Your task to perform on an android device: turn off location Image 0: 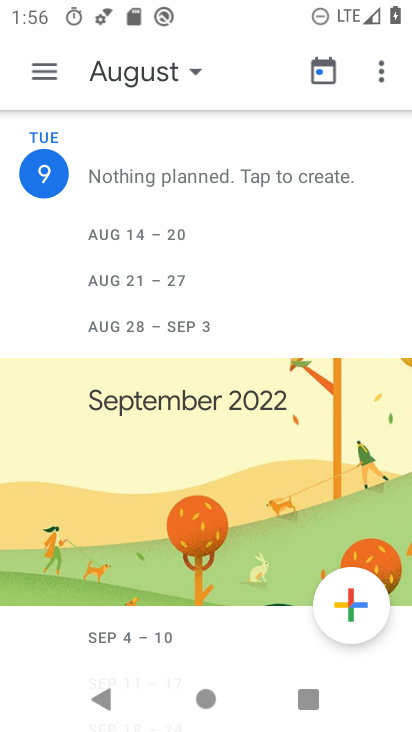
Step 0: press home button
Your task to perform on an android device: turn off location Image 1: 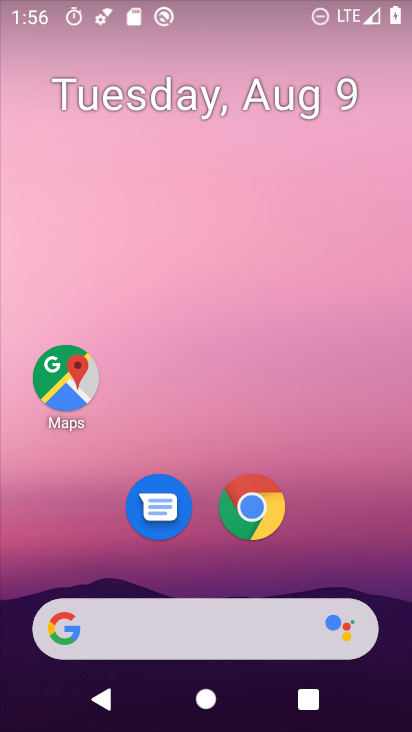
Step 1: click (243, 156)
Your task to perform on an android device: turn off location Image 2: 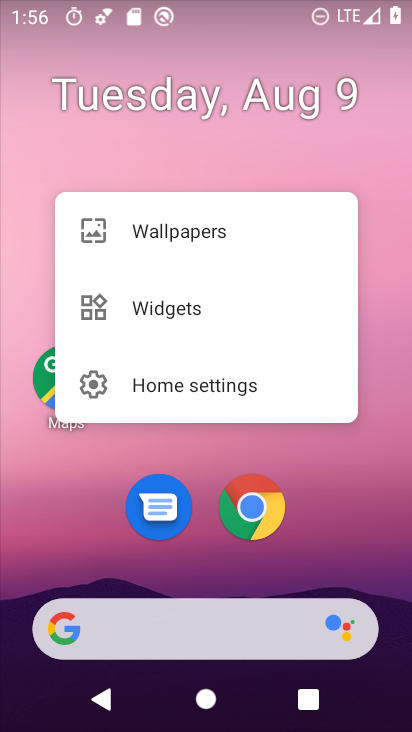
Step 2: click (318, 510)
Your task to perform on an android device: turn off location Image 3: 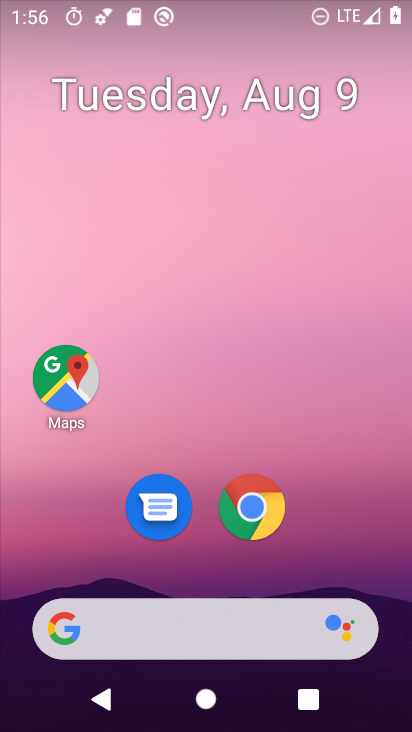
Step 3: click (327, 524)
Your task to perform on an android device: turn off location Image 4: 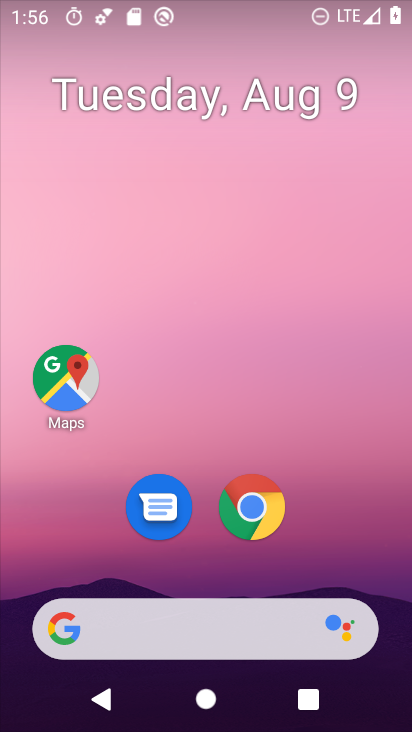
Step 4: drag from (350, 436) to (394, 148)
Your task to perform on an android device: turn off location Image 5: 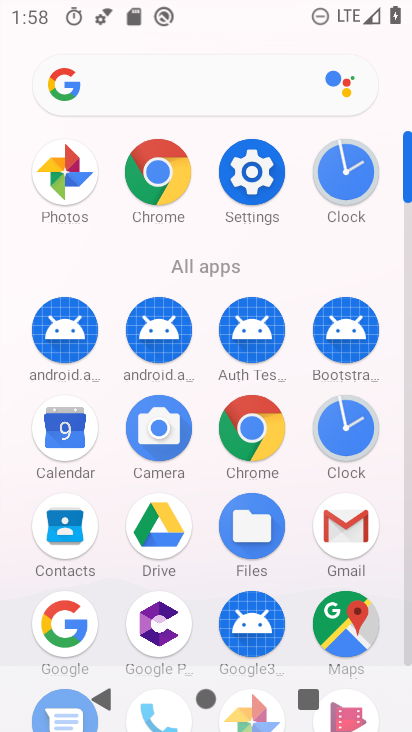
Step 5: click (275, 180)
Your task to perform on an android device: turn off location Image 6: 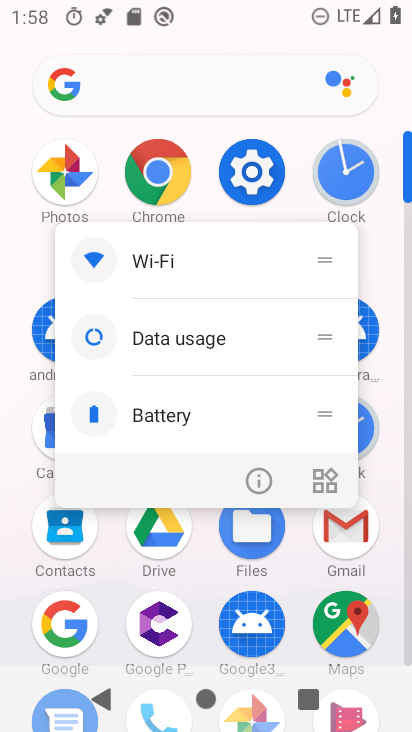
Step 6: click (269, 201)
Your task to perform on an android device: turn off location Image 7: 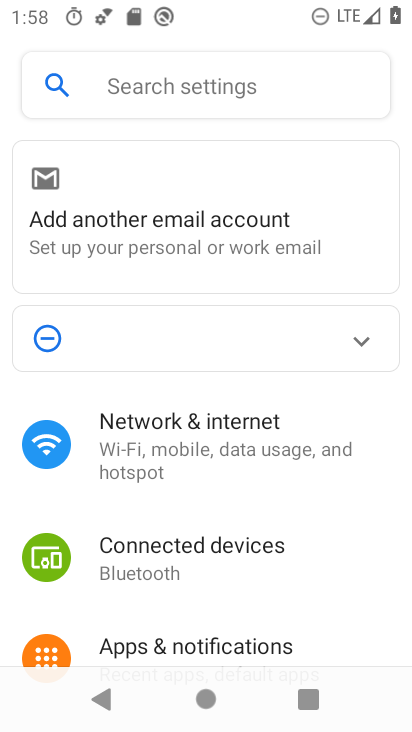
Step 7: task complete